Your task to perform on an android device: turn off translation in the chrome app Image 0: 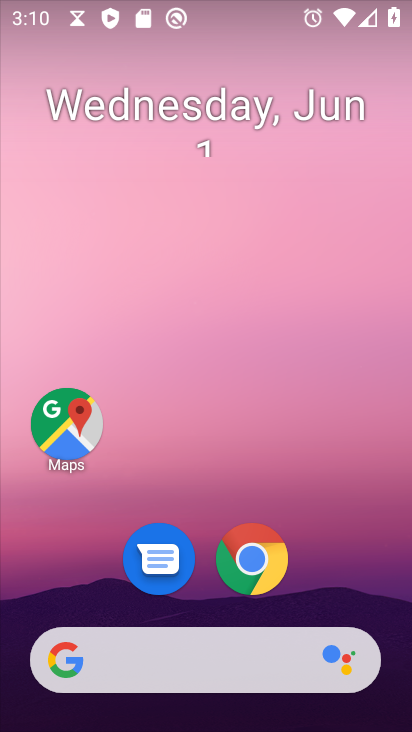
Step 0: click (254, 555)
Your task to perform on an android device: turn off translation in the chrome app Image 1: 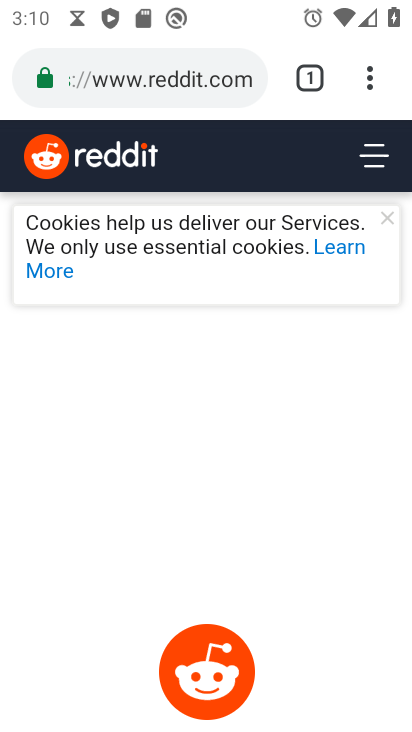
Step 1: click (363, 80)
Your task to perform on an android device: turn off translation in the chrome app Image 2: 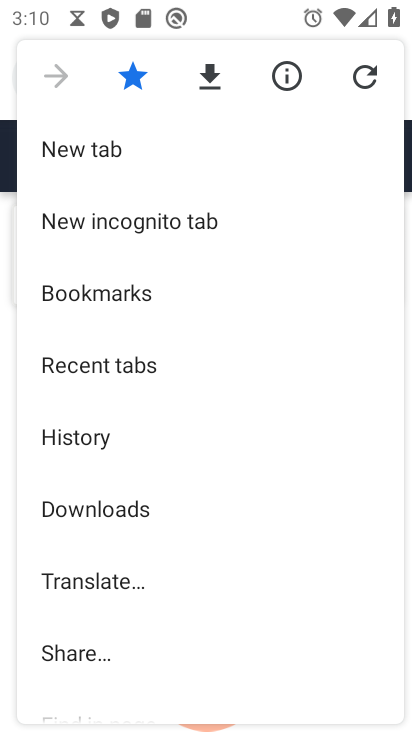
Step 2: drag from (106, 629) to (86, 222)
Your task to perform on an android device: turn off translation in the chrome app Image 3: 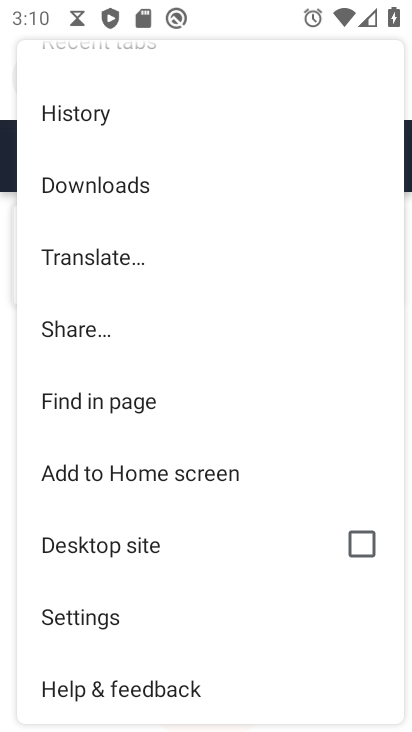
Step 3: click (67, 618)
Your task to perform on an android device: turn off translation in the chrome app Image 4: 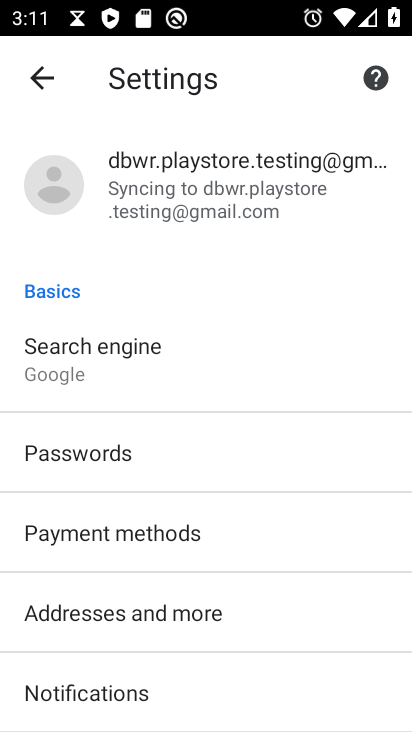
Step 4: drag from (167, 699) to (169, 198)
Your task to perform on an android device: turn off translation in the chrome app Image 5: 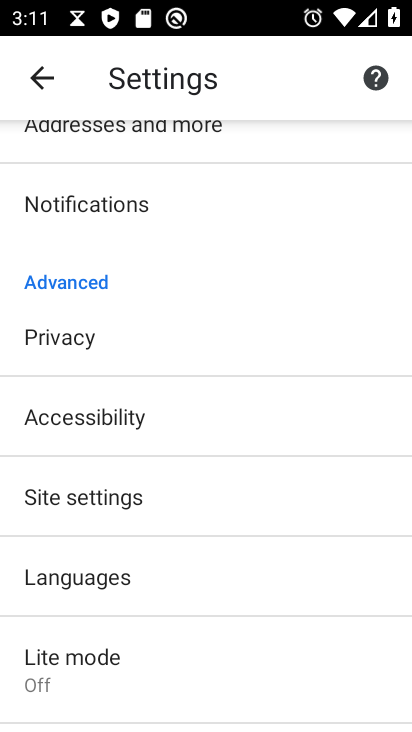
Step 5: click (132, 580)
Your task to perform on an android device: turn off translation in the chrome app Image 6: 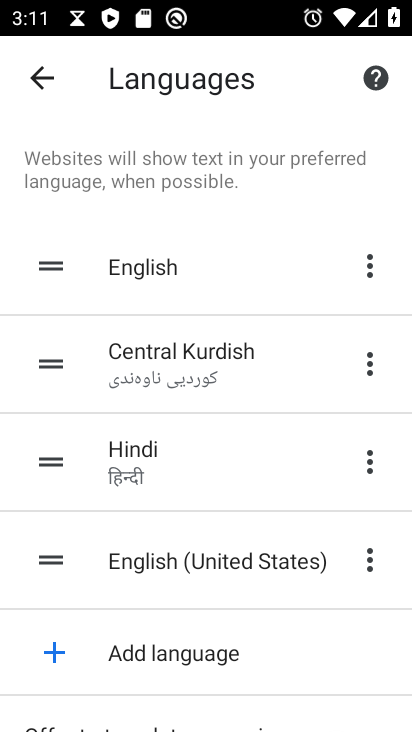
Step 6: task complete